Your task to perform on an android device: empty trash in the gmail app Image 0: 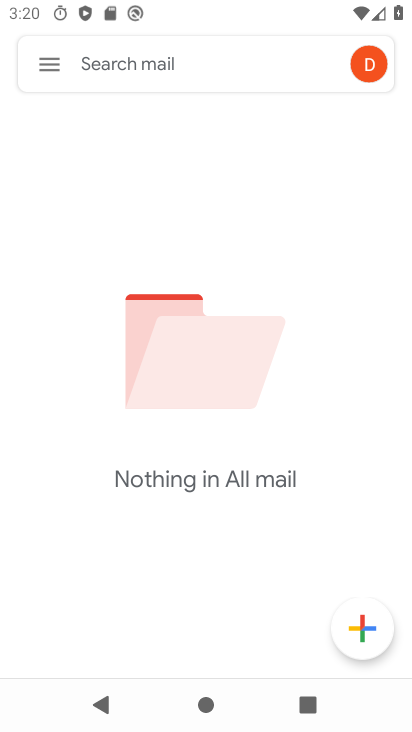
Step 0: press home button
Your task to perform on an android device: empty trash in the gmail app Image 1: 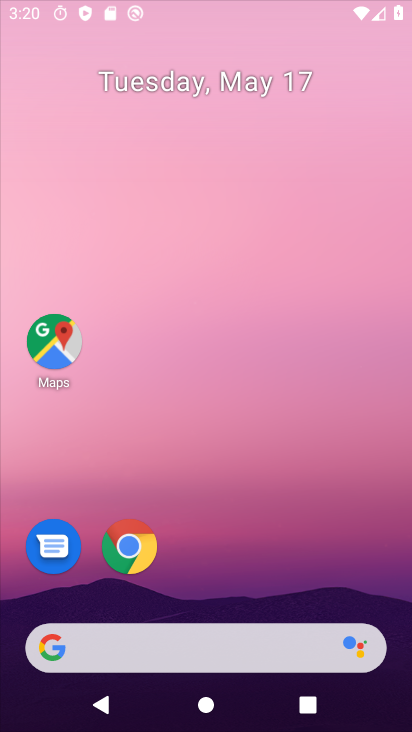
Step 1: drag from (210, 662) to (241, 181)
Your task to perform on an android device: empty trash in the gmail app Image 2: 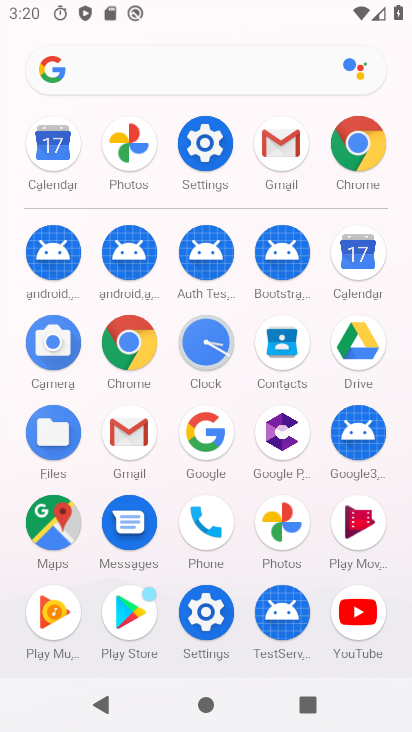
Step 2: click (133, 420)
Your task to perform on an android device: empty trash in the gmail app Image 3: 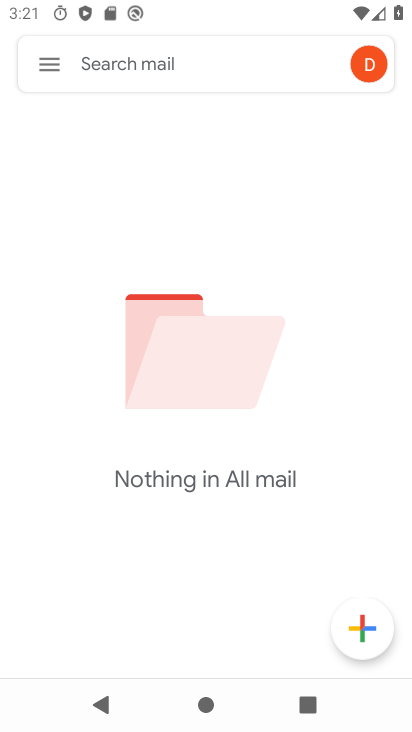
Step 3: click (53, 69)
Your task to perform on an android device: empty trash in the gmail app Image 4: 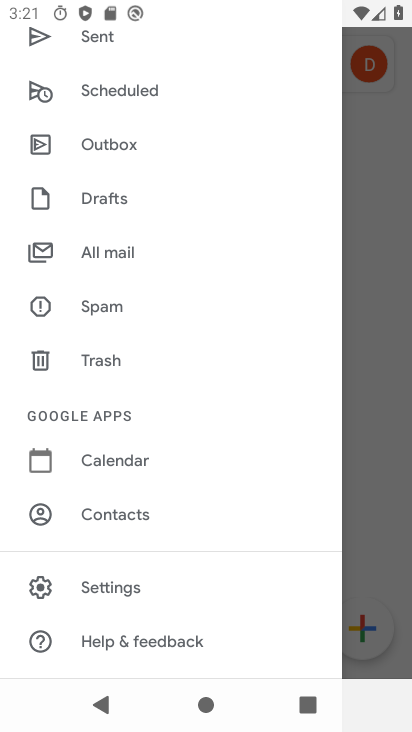
Step 4: click (122, 366)
Your task to perform on an android device: empty trash in the gmail app Image 5: 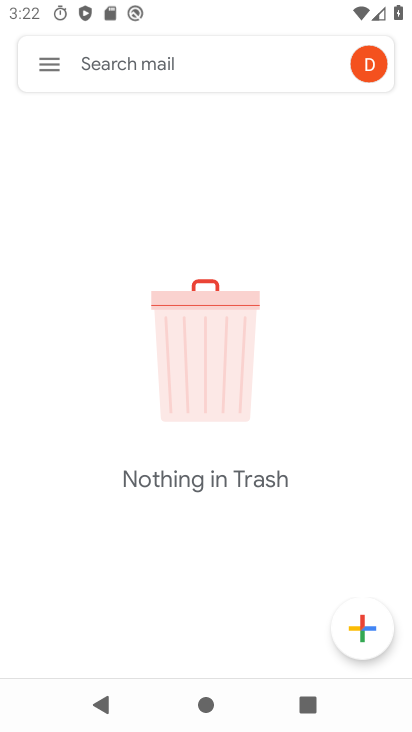
Step 5: task complete